Your task to perform on an android device: change notification settings in the gmail app Image 0: 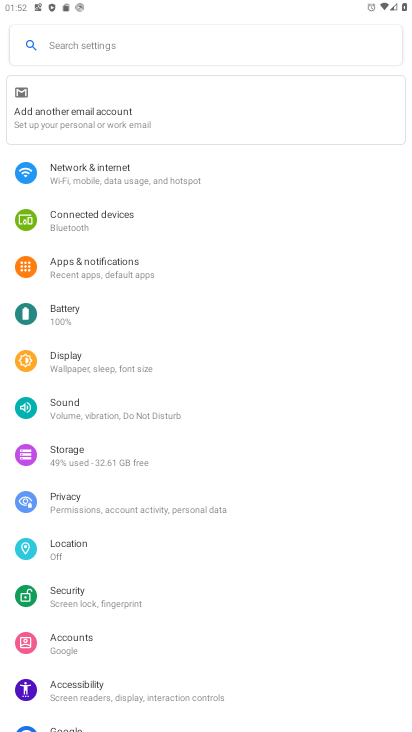
Step 0: press home button
Your task to perform on an android device: change notification settings in the gmail app Image 1: 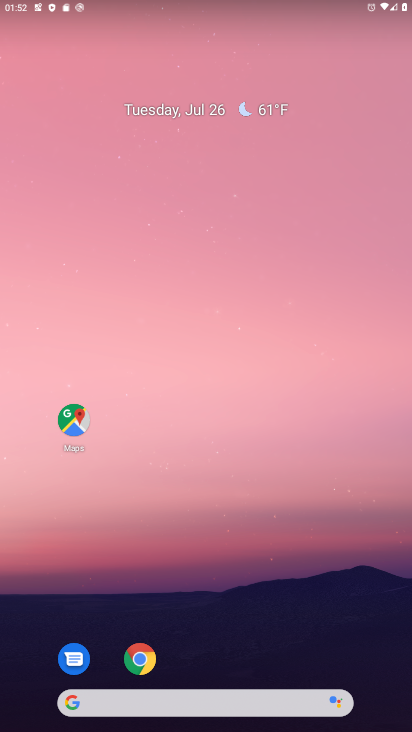
Step 1: drag from (301, 631) to (14, 23)
Your task to perform on an android device: change notification settings in the gmail app Image 2: 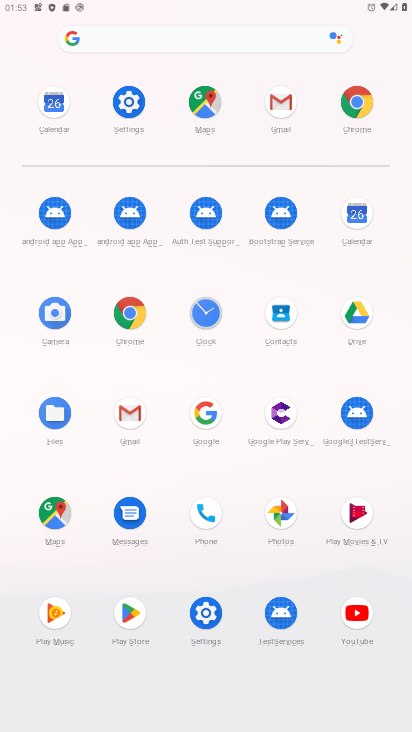
Step 2: click (294, 111)
Your task to perform on an android device: change notification settings in the gmail app Image 3: 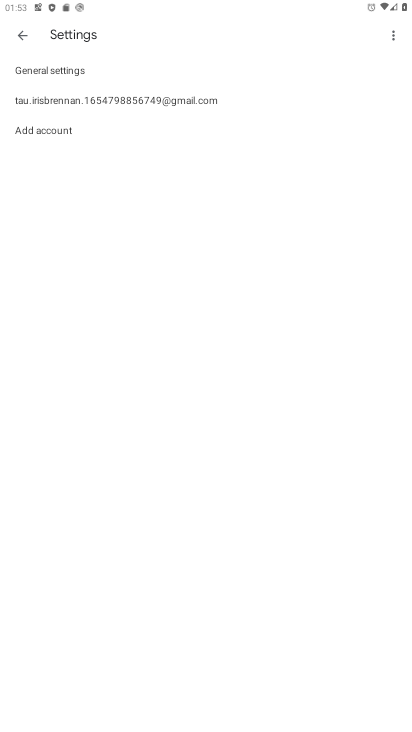
Step 3: click (89, 110)
Your task to perform on an android device: change notification settings in the gmail app Image 4: 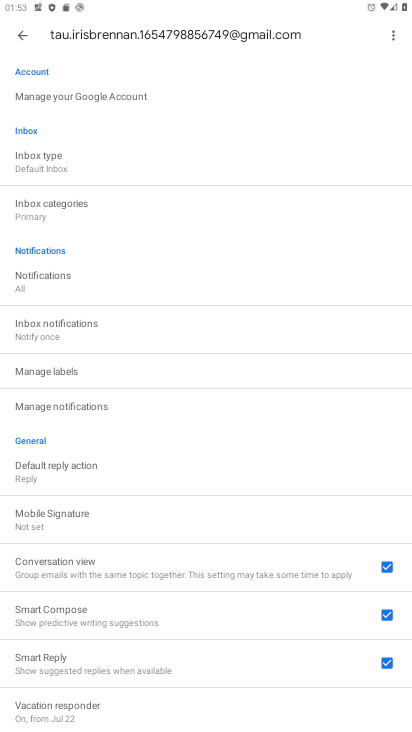
Step 4: click (90, 403)
Your task to perform on an android device: change notification settings in the gmail app Image 5: 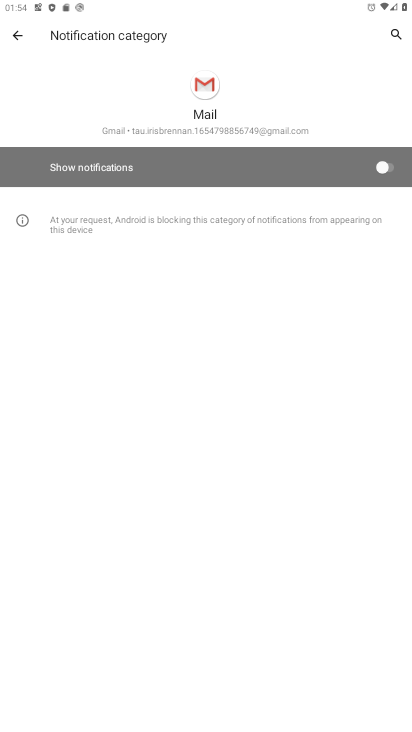
Step 5: click (324, 154)
Your task to perform on an android device: change notification settings in the gmail app Image 6: 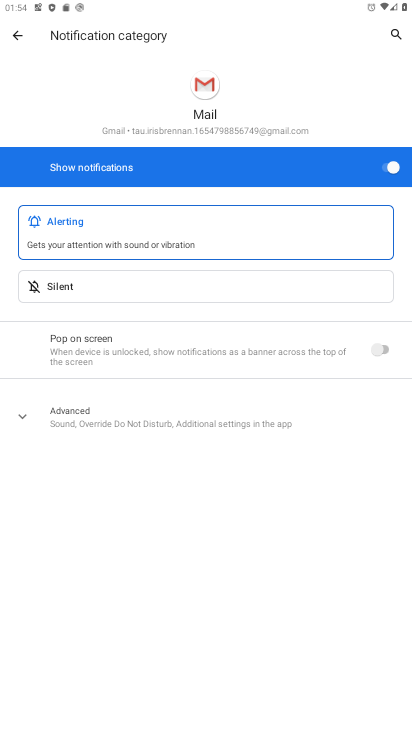
Step 6: task complete